Your task to perform on an android device: Open display settings Image 0: 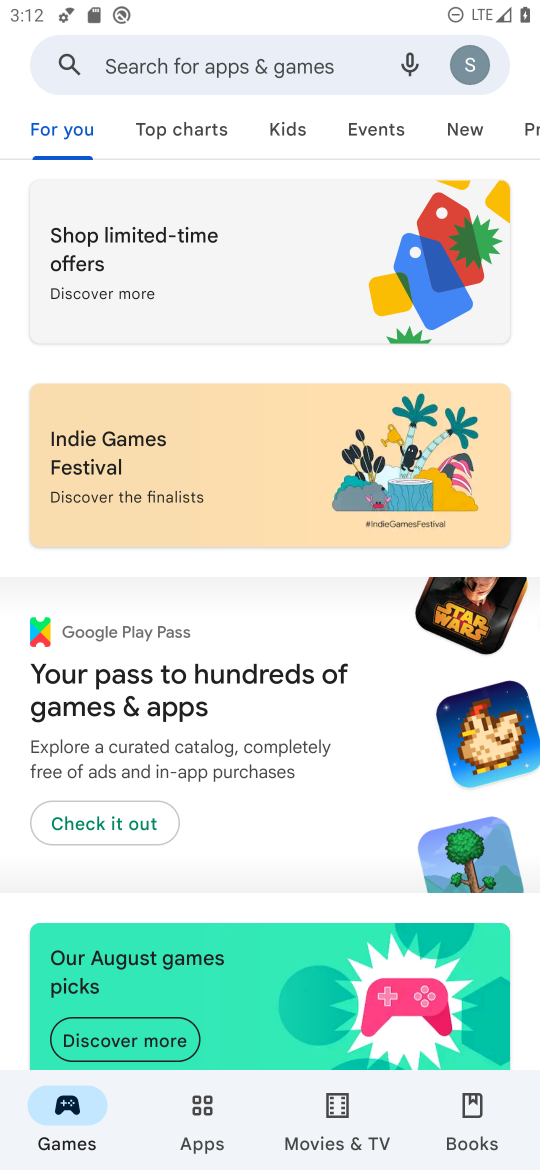
Step 0: press home button
Your task to perform on an android device: Open display settings Image 1: 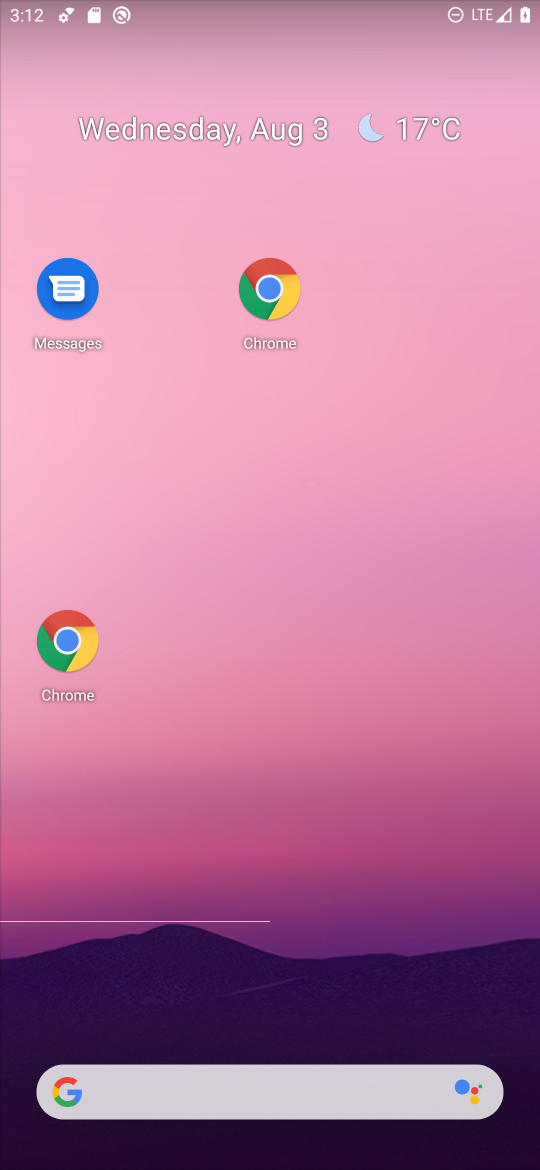
Step 1: drag from (415, 977) to (356, 257)
Your task to perform on an android device: Open display settings Image 2: 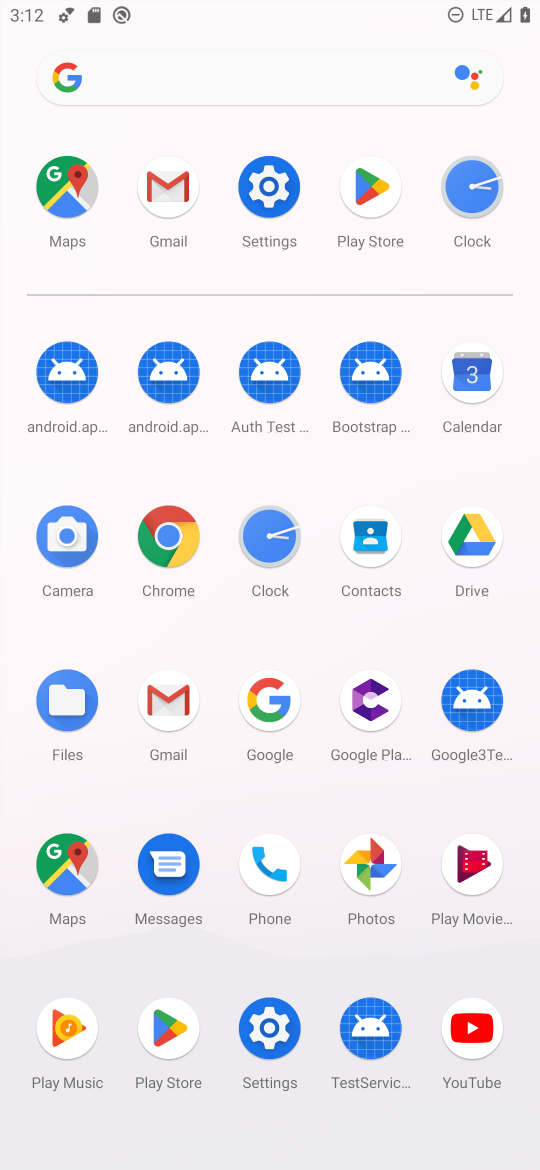
Step 2: click (273, 221)
Your task to perform on an android device: Open display settings Image 3: 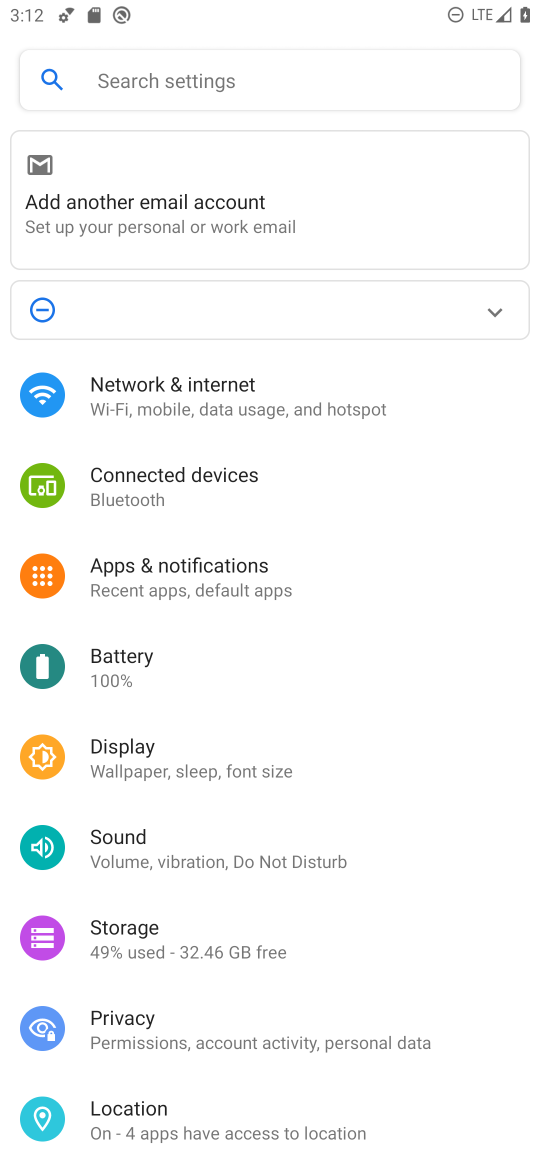
Step 3: click (210, 771)
Your task to perform on an android device: Open display settings Image 4: 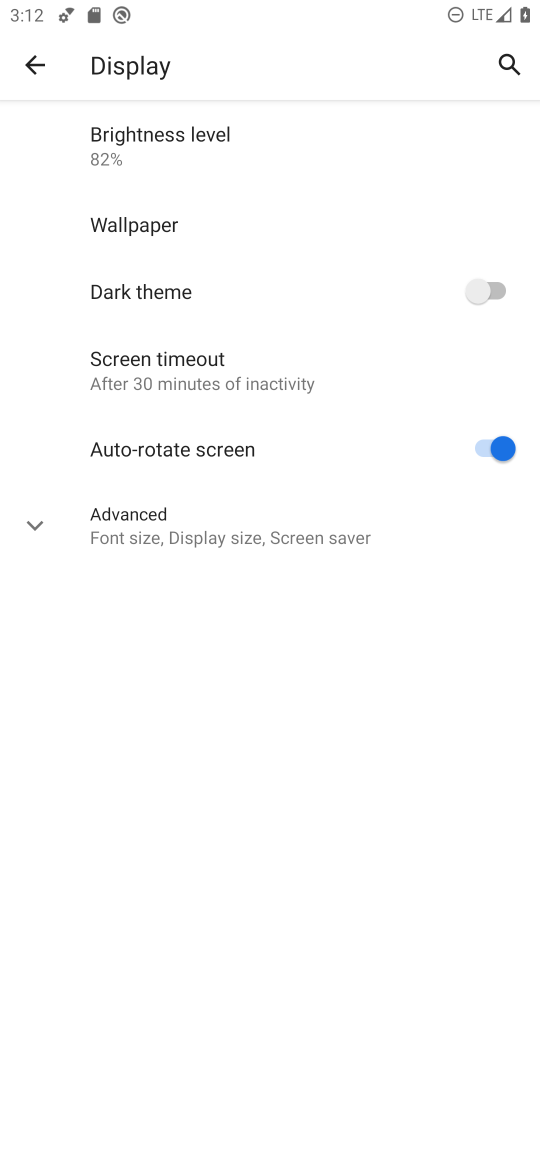
Step 4: task complete